Your task to perform on an android device: stop showing notifications on the lock screen Image 0: 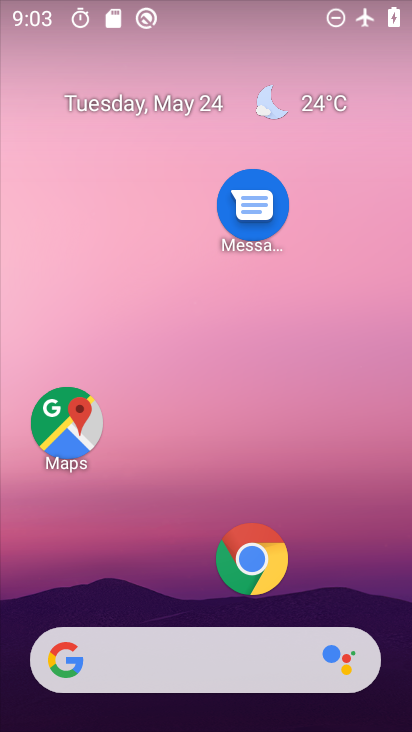
Step 0: drag from (179, 588) to (184, 220)
Your task to perform on an android device: stop showing notifications on the lock screen Image 1: 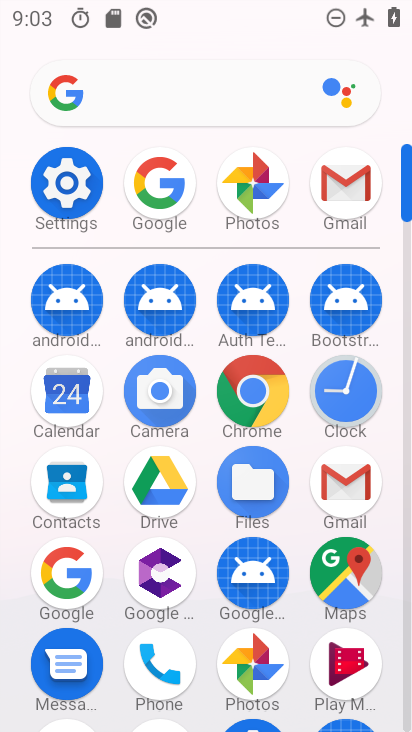
Step 1: click (78, 170)
Your task to perform on an android device: stop showing notifications on the lock screen Image 2: 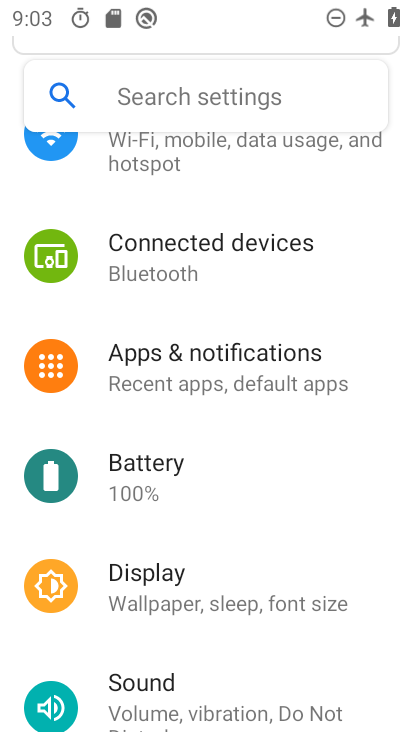
Step 2: click (214, 377)
Your task to perform on an android device: stop showing notifications on the lock screen Image 3: 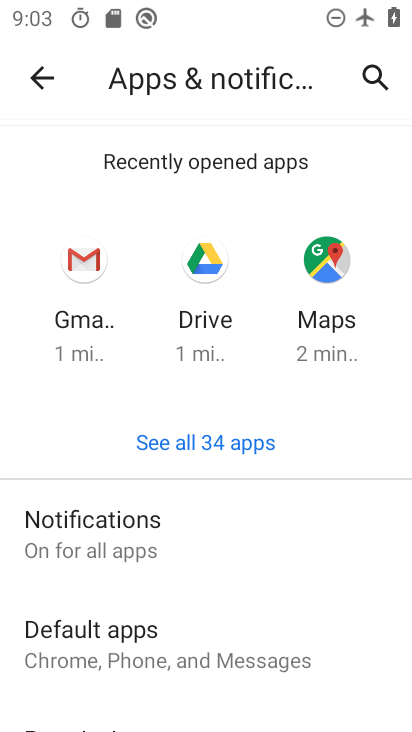
Step 3: drag from (234, 562) to (233, 375)
Your task to perform on an android device: stop showing notifications on the lock screen Image 4: 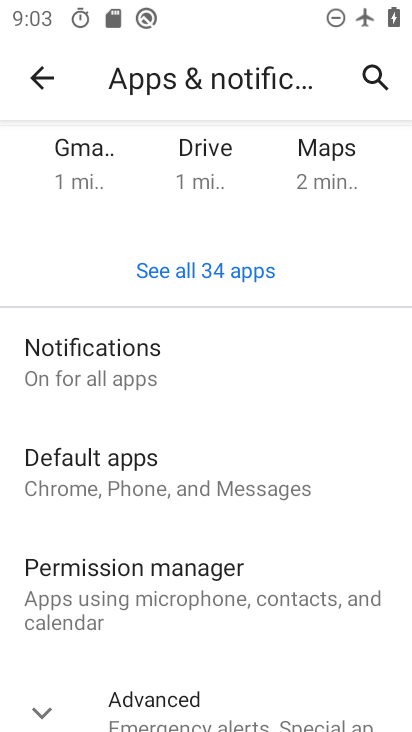
Step 4: click (199, 367)
Your task to perform on an android device: stop showing notifications on the lock screen Image 5: 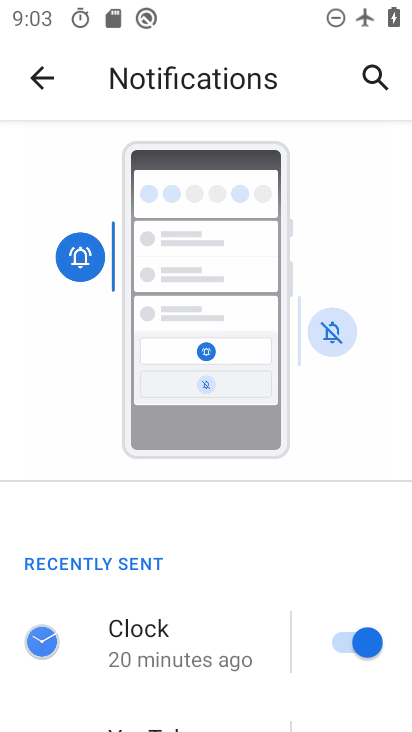
Step 5: drag from (231, 528) to (233, 215)
Your task to perform on an android device: stop showing notifications on the lock screen Image 6: 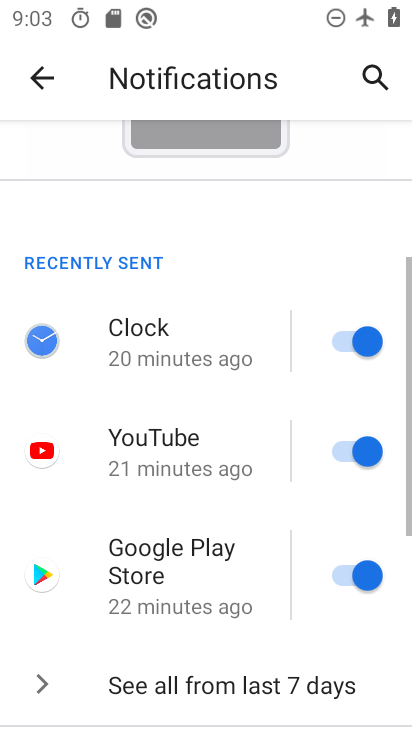
Step 6: drag from (229, 436) to (222, 230)
Your task to perform on an android device: stop showing notifications on the lock screen Image 7: 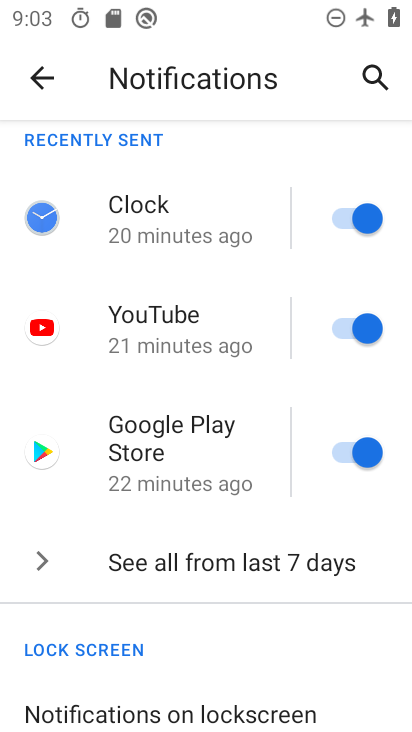
Step 7: drag from (243, 501) to (240, 234)
Your task to perform on an android device: stop showing notifications on the lock screen Image 8: 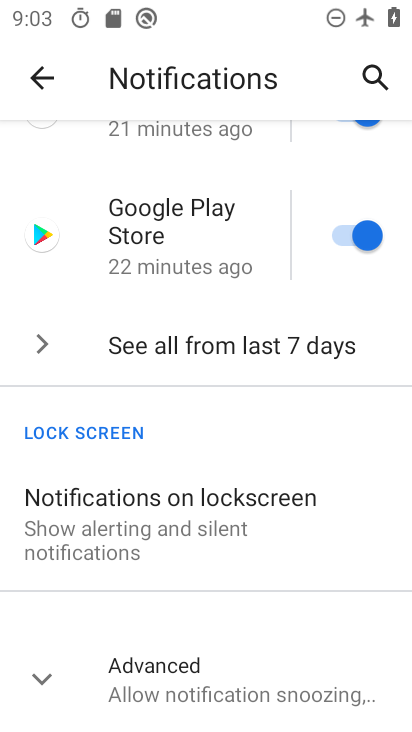
Step 8: click (219, 513)
Your task to perform on an android device: stop showing notifications on the lock screen Image 9: 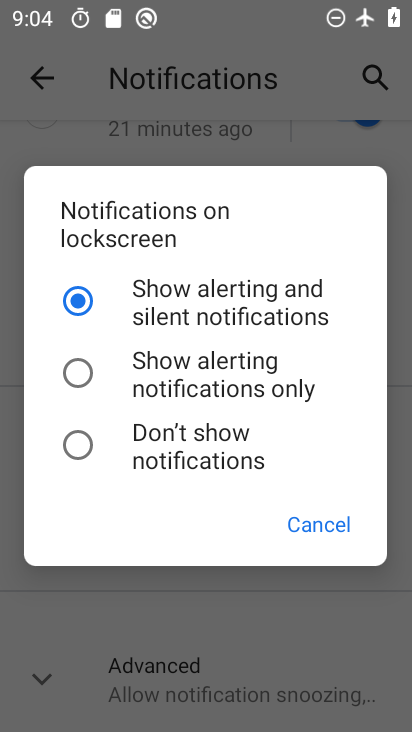
Step 9: click (208, 439)
Your task to perform on an android device: stop showing notifications on the lock screen Image 10: 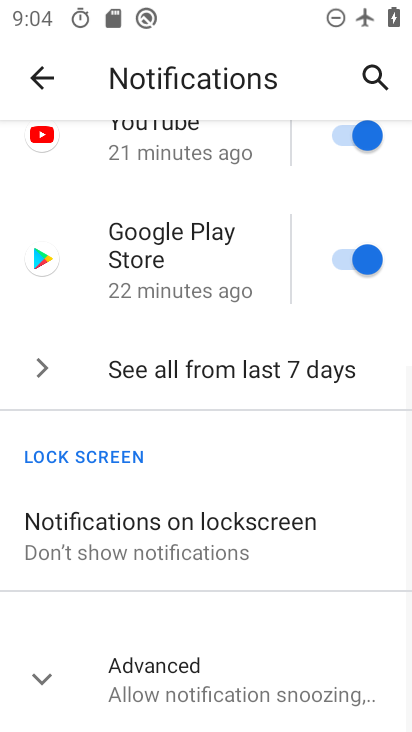
Step 10: task complete